Your task to perform on an android device: Do I have any events tomorrow? Image 0: 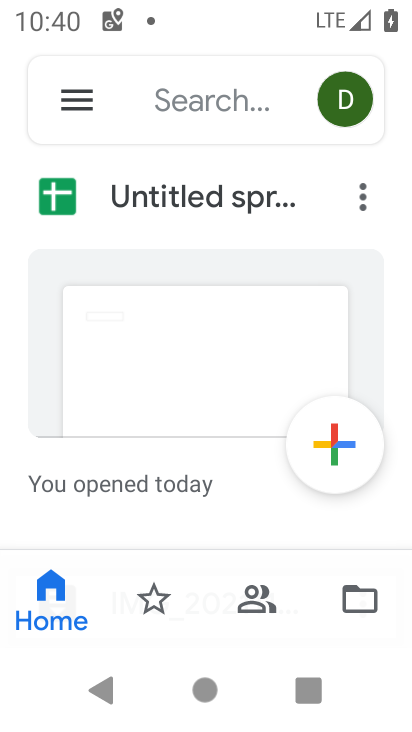
Step 0: press home button
Your task to perform on an android device: Do I have any events tomorrow? Image 1: 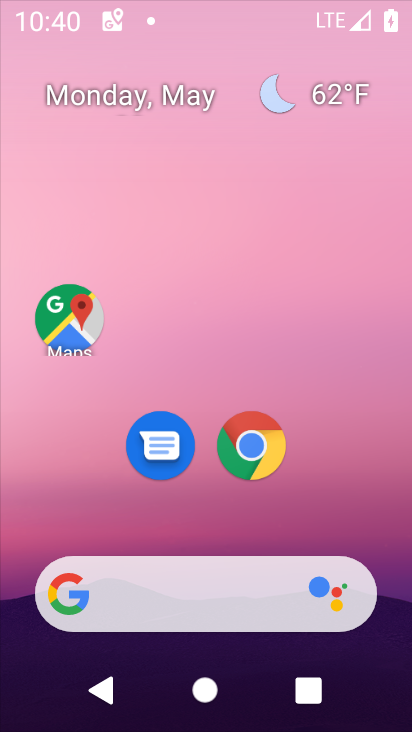
Step 1: drag from (388, 633) to (199, 8)
Your task to perform on an android device: Do I have any events tomorrow? Image 2: 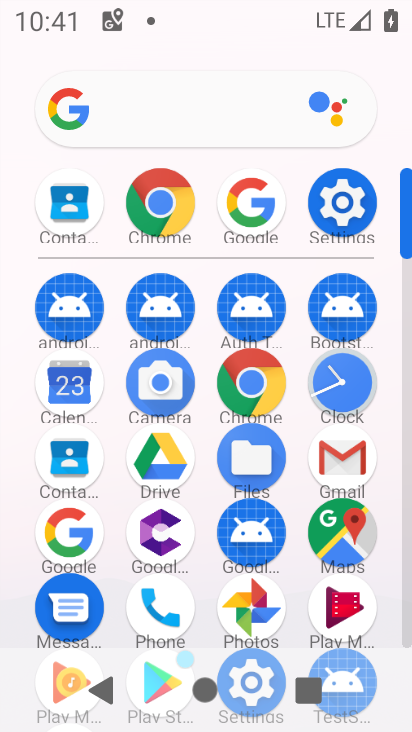
Step 2: click (53, 379)
Your task to perform on an android device: Do I have any events tomorrow? Image 3: 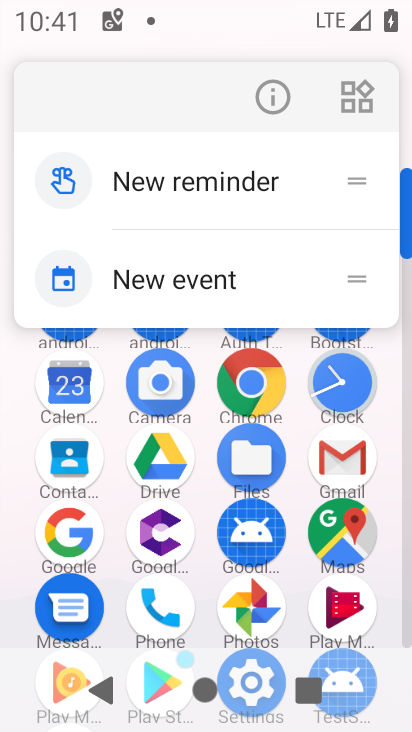
Step 3: click (59, 368)
Your task to perform on an android device: Do I have any events tomorrow? Image 4: 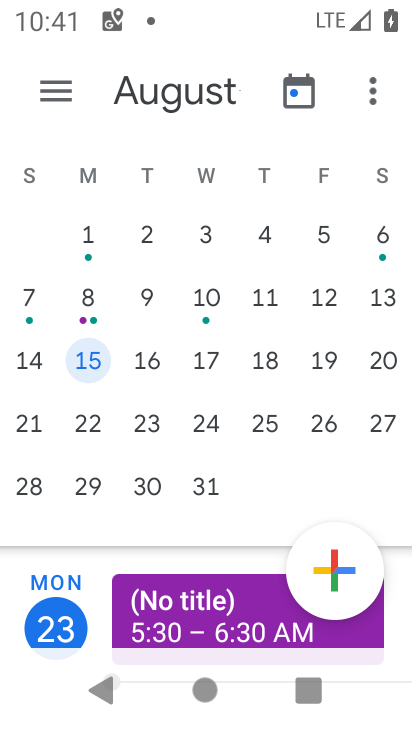
Step 4: task complete